Your task to perform on an android device: When is my next meeting? Image 0: 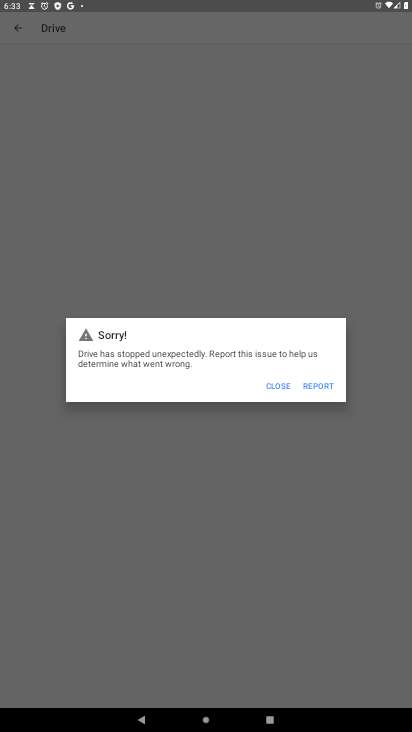
Step 0: drag from (254, 628) to (293, 311)
Your task to perform on an android device: When is my next meeting? Image 1: 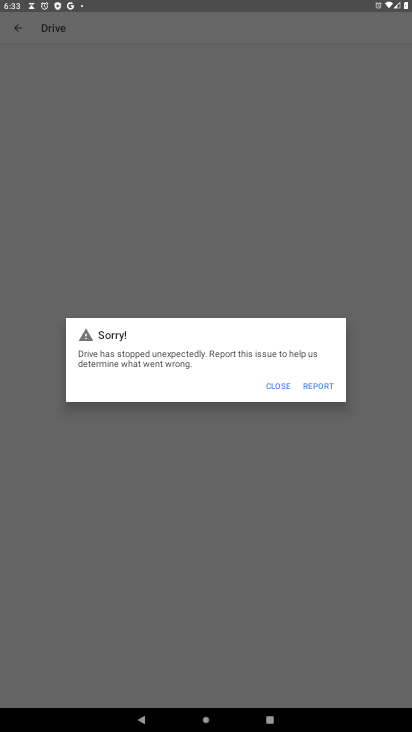
Step 1: press home button
Your task to perform on an android device: When is my next meeting? Image 2: 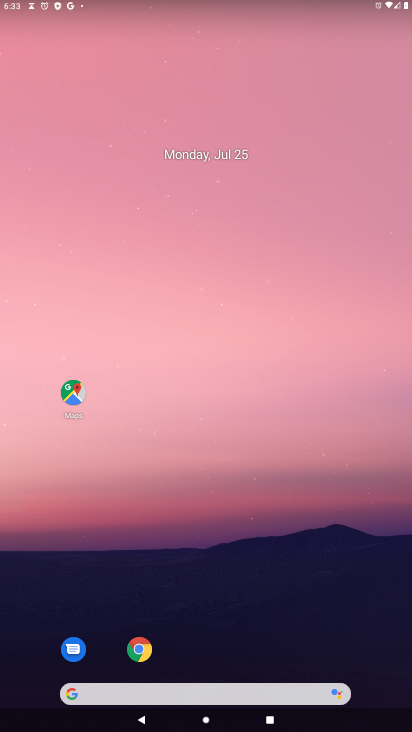
Step 2: drag from (213, 657) to (274, 31)
Your task to perform on an android device: When is my next meeting? Image 3: 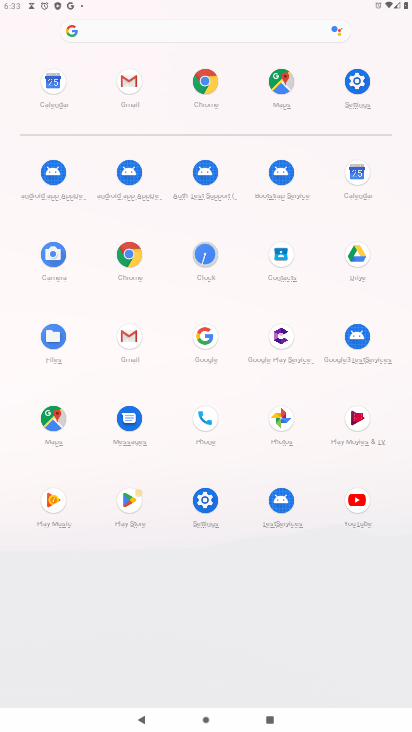
Step 3: click (352, 189)
Your task to perform on an android device: When is my next meeting? Image 4: 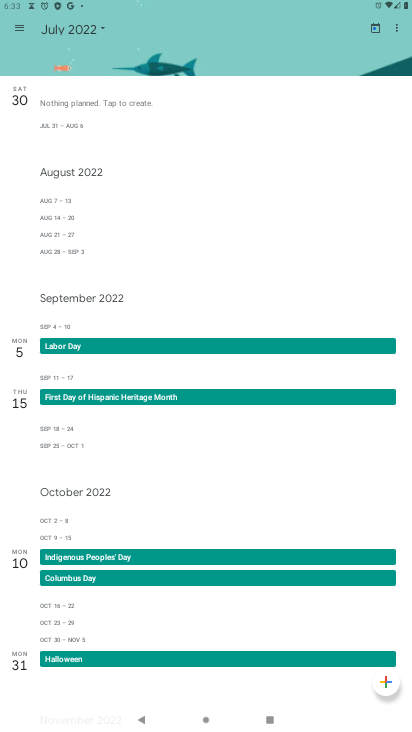
Step 4: click (102, 28)
Your task to perform on an android device: When is my next meeting? Image 5: 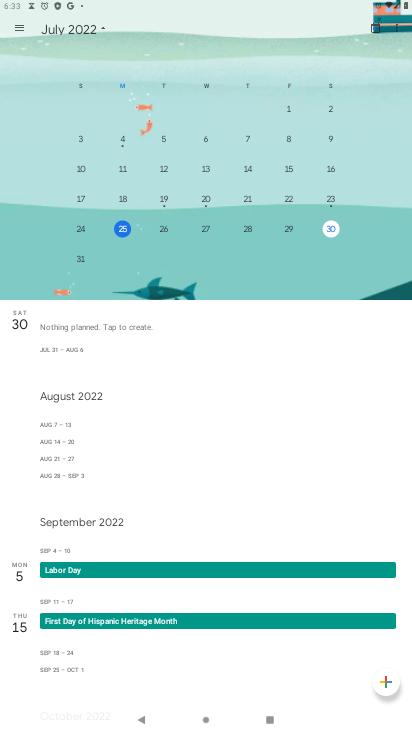
Step 5: task complete